Your task to perform on an android device: see tabs open on other devices in the chrome app Image 0: 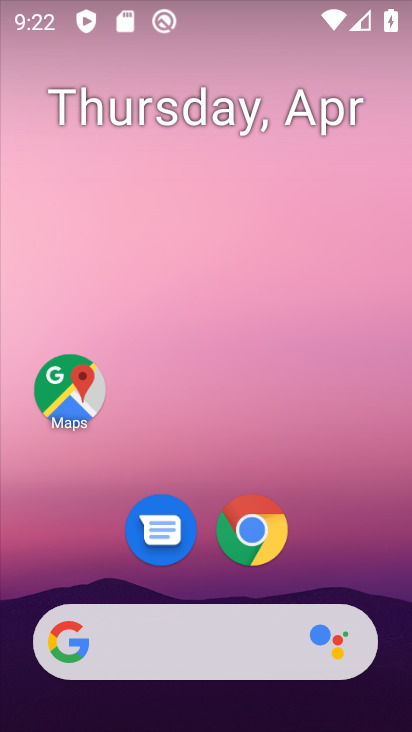
Step 0: drag from (372, 579) to (247, 45)
Your task to perform on an android device: see tabs open on other devices in the chrome app Image 1: 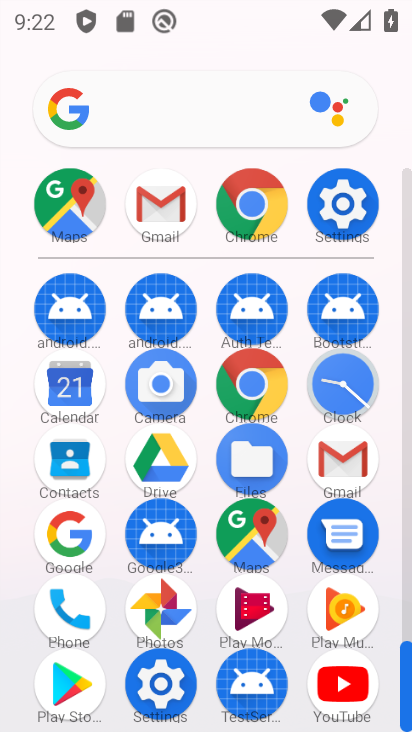
Step 1: click (250, 397)
Your task to perform on an android device: see tabs open on other devices in the chrome app Image 2: 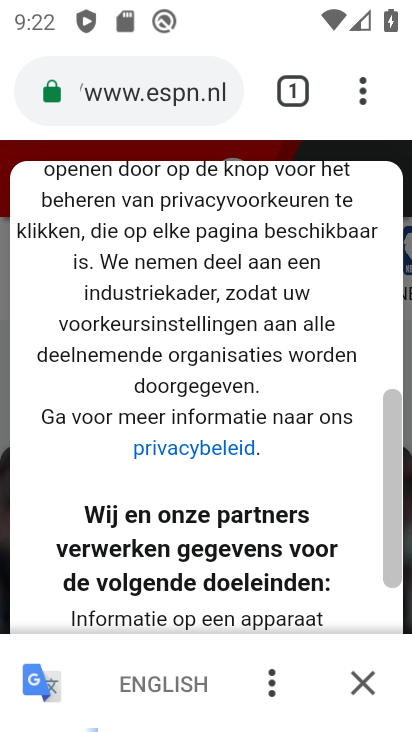
Step 2: task complete